Your task to perform on an android device: check out phone information Image 0: 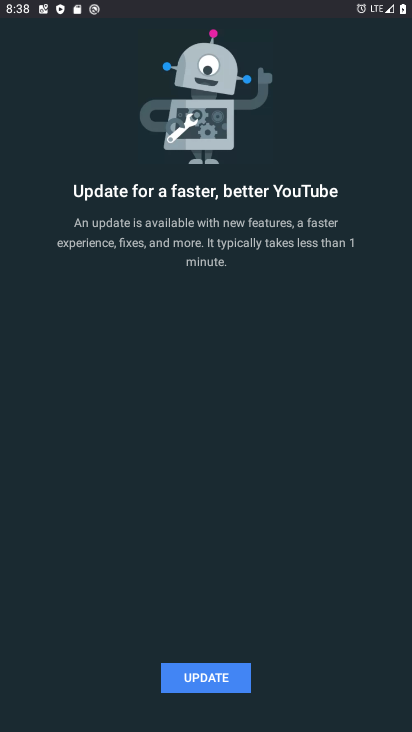
Step 0: press back button
Your task to perform on an android device: check out phone information Image 1: 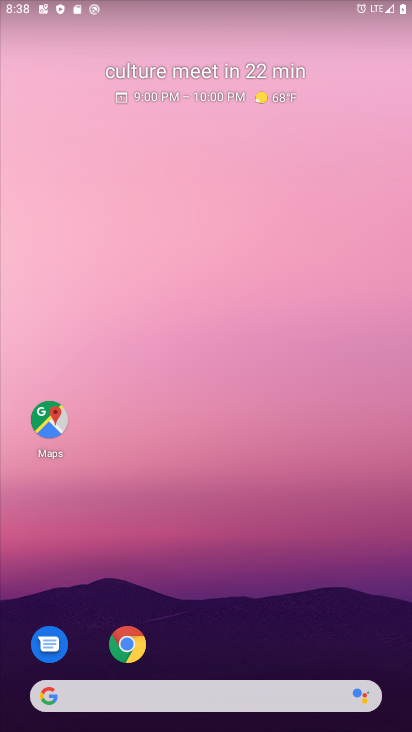
Step 1: drag from (312, 719) to (249, 250)
Your task to perform on an android device: check out phone information Image 2: 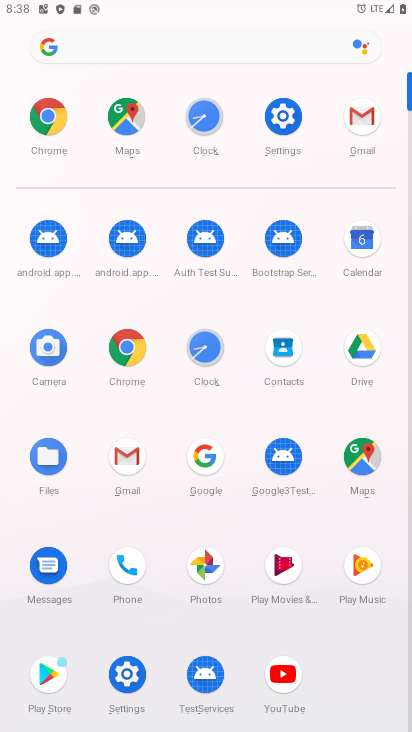
Step 2: click (285, 121)
Your task to perform on an android device: check out phone information Image 3: 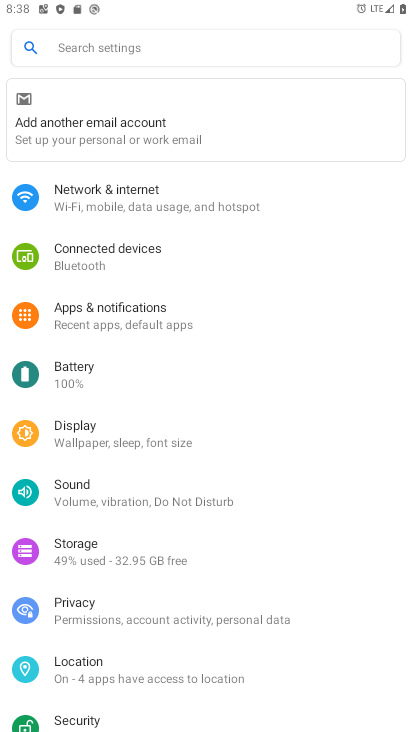
Step 3: click (116, 45)
Your task to perform on an android device: check out phone information Image 4: 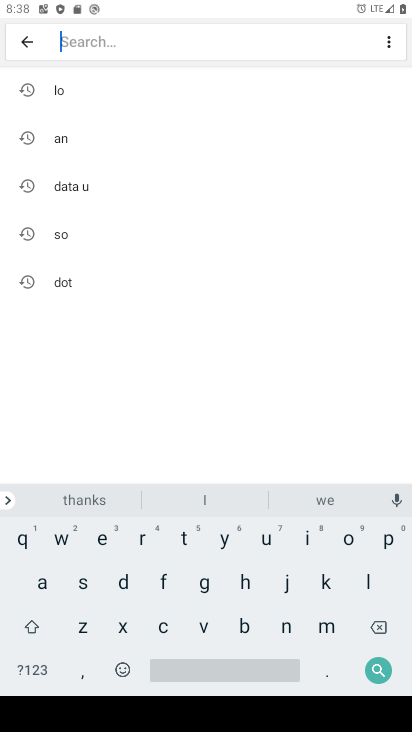
Step 4: click (42, 582)
Your task to perform on an android device: check out phone information Image 5: 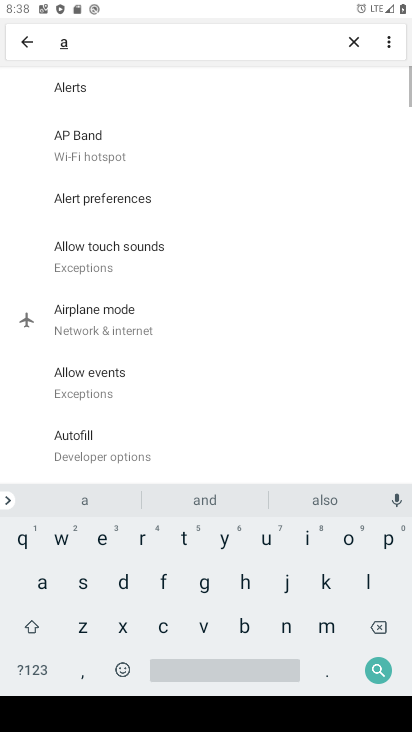
Step 5: click (247, 620)
Your task to perform on an android device: check out phone information Image 6: 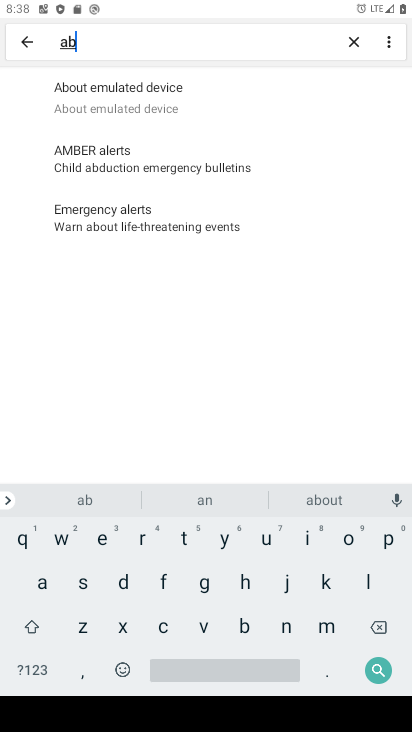
Step 6: click (122, 92)
Your task to perform on an android device: check out phone information Image 7: 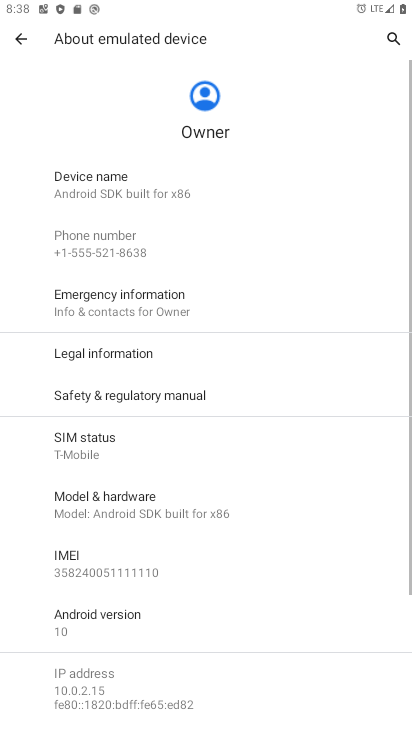
Step 7: task complete